Your task to perform on an android device: Open Android settings Image 0: 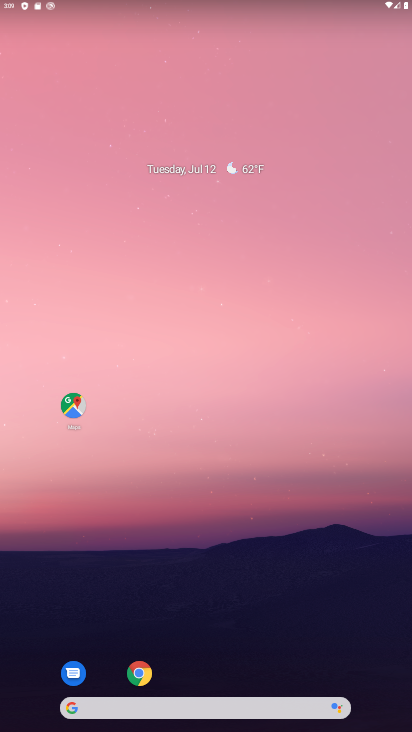
Step 0: drag from (207, 669) to (211, 145)
Your task to perform on an android device: Open Android settings Image 1: 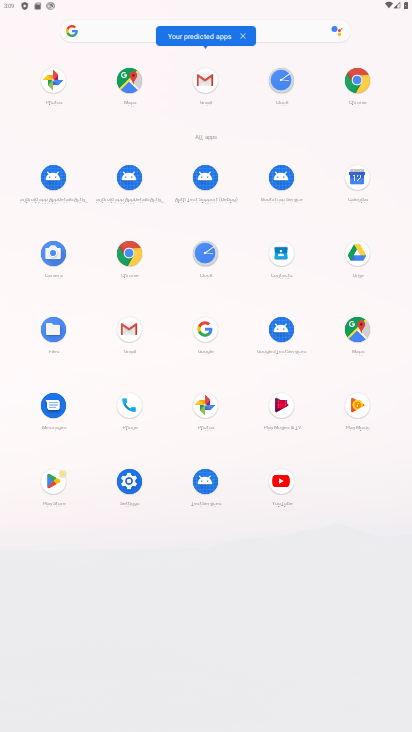
Step 1: click (141, 487)
Your task to perform on an android device: Open Android settings Image 2: 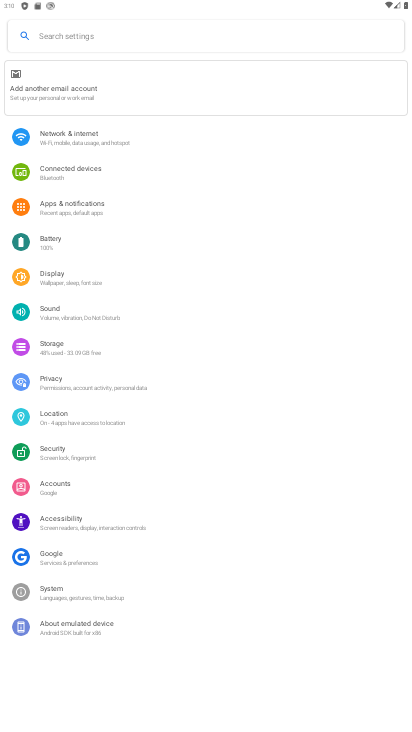
Step 2: task complete